Your task to perform on an android device: change the clock display to analog Image 0: 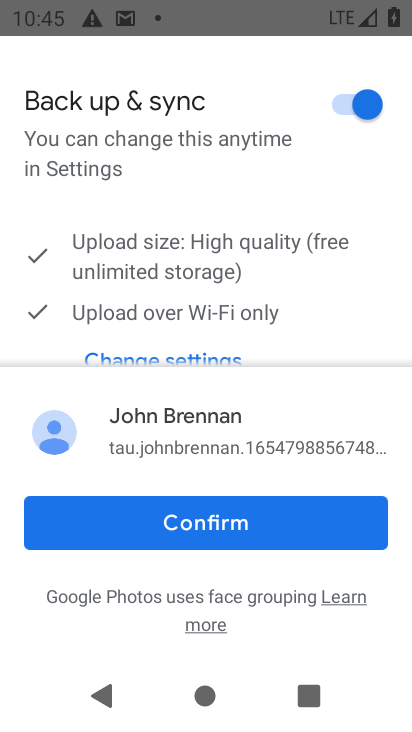
Step 0: press back button
Your task to perform on an android device: change the clock display to analog Image 1: 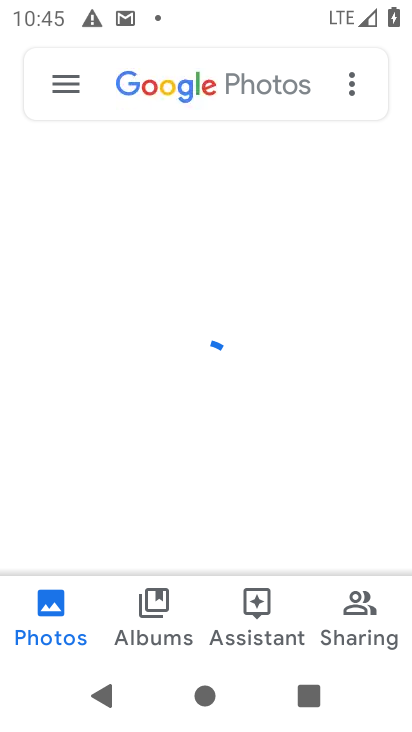
Step 1: press home button
Your task to perform on an android device: change the clock display to analog Image 2: 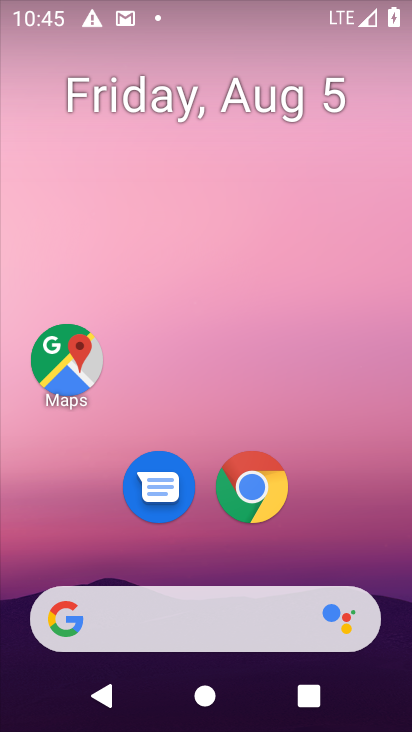
Step 2: drag from (198, 532) to (238, 7)
Your task to perform on an android device: change the clock display to analog Image 3: 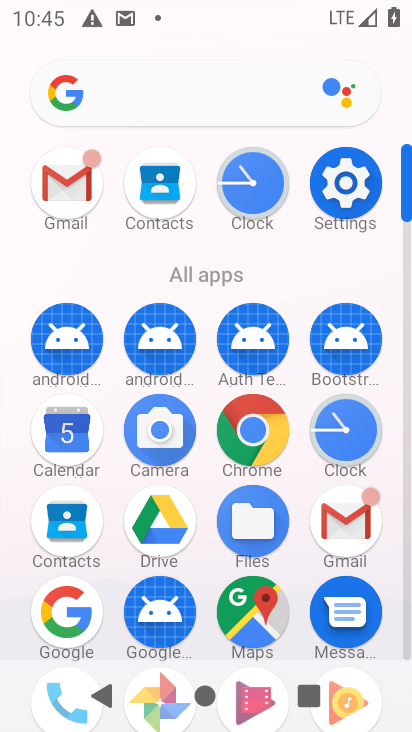
Step 3: click (251, 199)
Your task to perform on an android device: change the clock display to analog Image 4: 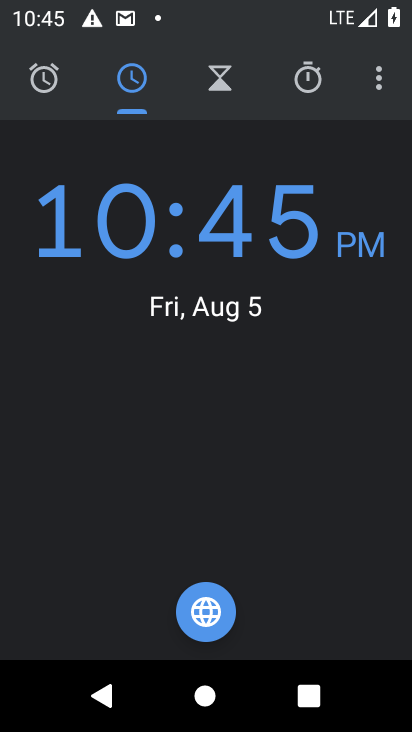
Step 4: click (378, 72)
Your task to perform on an android device: change the clock display to analog Image 5: 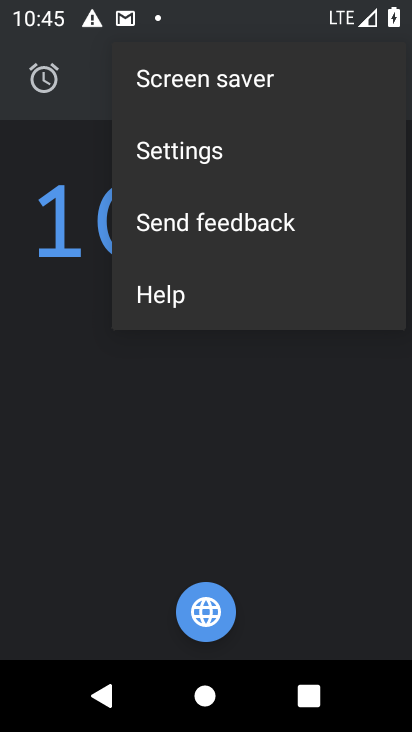
Step 5: click (197, 155)
Your task to perform on an android device: change the clock display to analog Image 6: 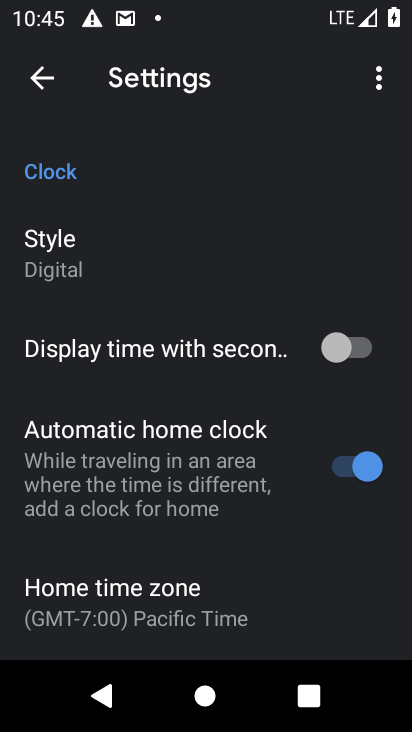
Step 6: click (118, 244)
Your task to perform on an android device: change the clock display to analog Image 7: 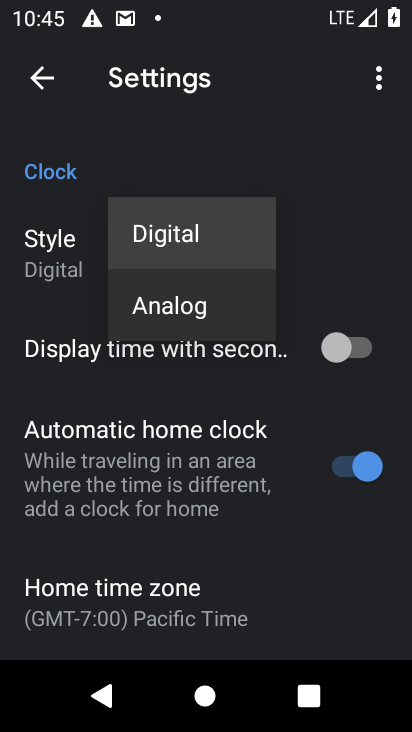
Step 7: click (156, 305)
Your task to perform on an android device: change the clock display to analog Image 8: 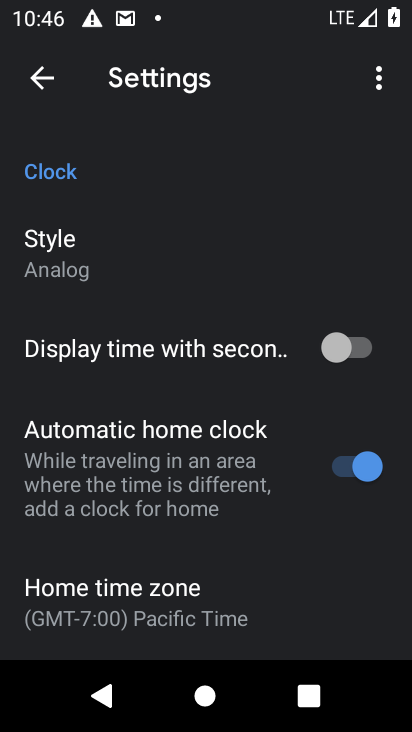
Step 8: task complete